Your task to perform on an android device: Go to internet settings Image 0: 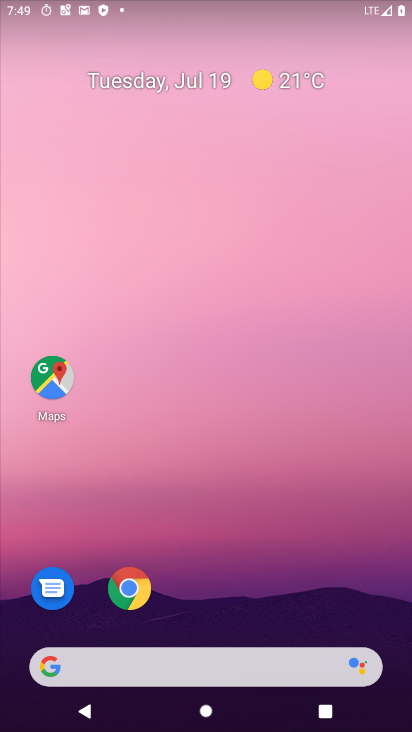
Step 0: drag from (235, 585) to (256, 180)
Your task to perform on an android device: Go to internet settings Image 1: 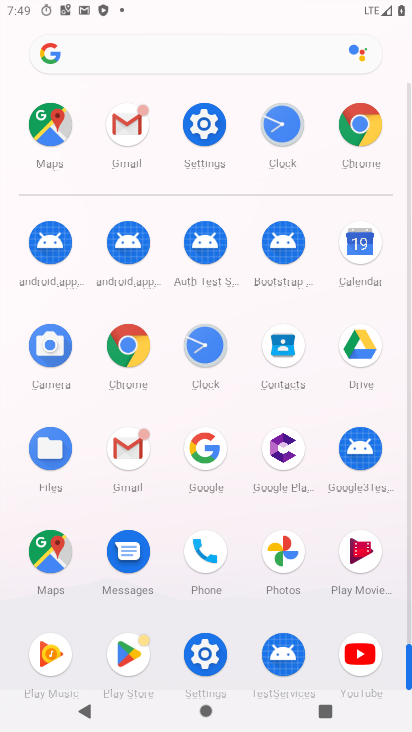
Step 1: click (192, 134)
Your task to perform on an android device: Go to internet settings Image 2: 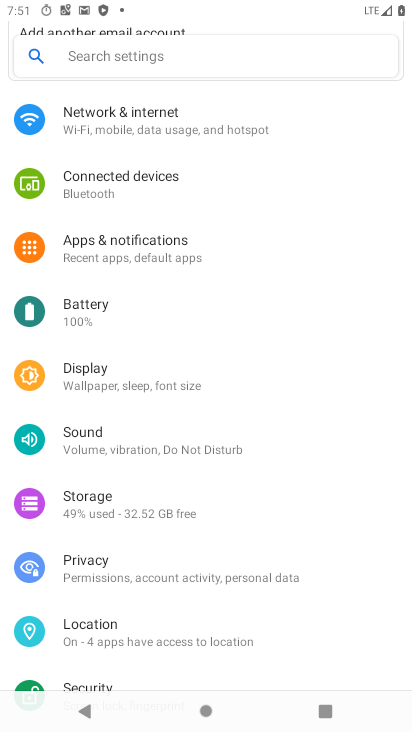
Step 2: click (204, 134)
Your task to perform on an android device: Go to internet settings Image 3: 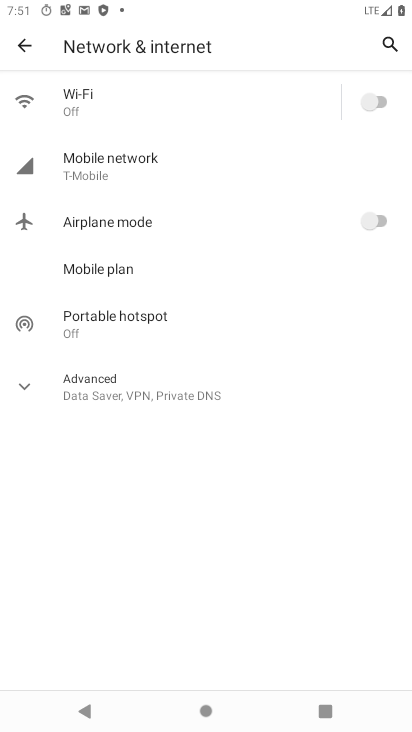
Step 3: click (145, 179)
Your task to perform on an android device: Go to internet settings Image 4: 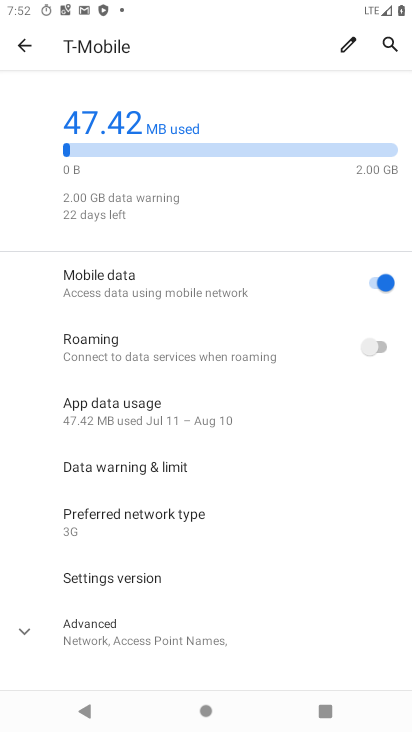
Step 4: task complete